Your task to perform on an android device: turn off javascript in the chrome app Image 0: 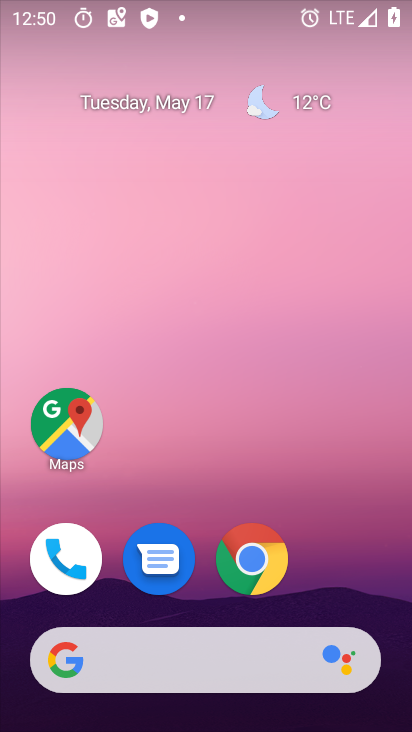
Step 0: click (252, 559)
Your task to perform on an android device: turn off javascript in the chrome app Image 1: 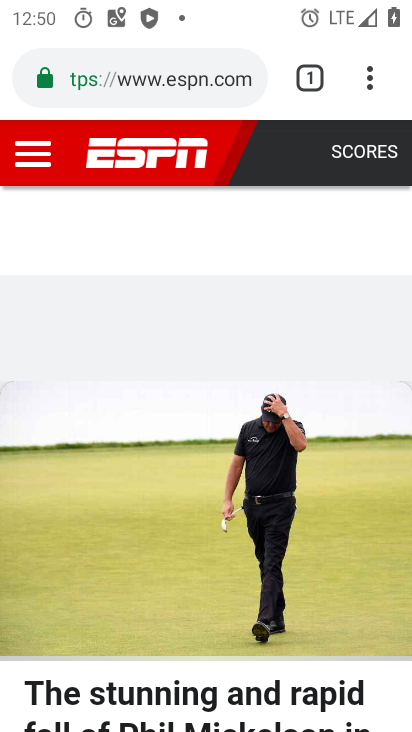
Step 1: drag from (371, 77) to (225, 630)
Your task to perform on an android device: turn off javascript in the chrome app Image 2: 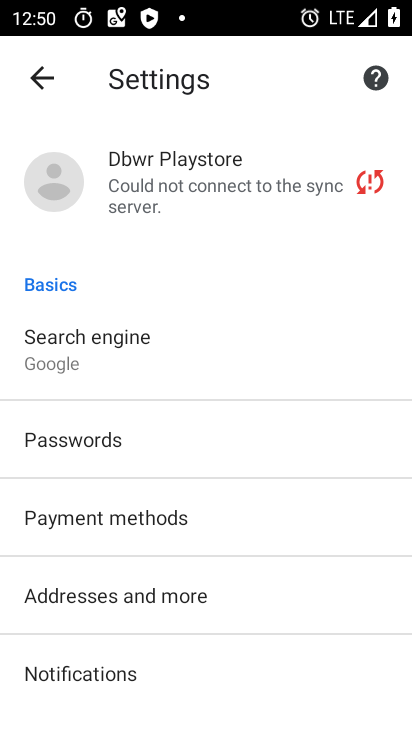
Step 2: drag from (231, 582) to (324, 163)
Your task to perform on an android device: turn off javascript in the chrome app Image 3: 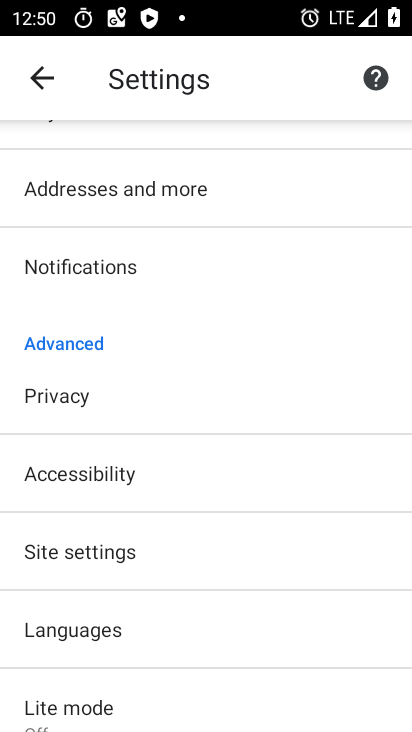
Step 3: click (125, 559)
Your task to perform on an android device: turn off javascript in the chrome app Image 4: 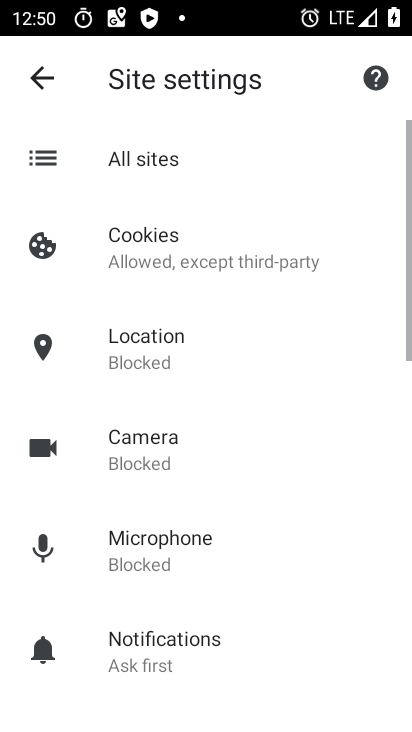
Step 4: drag from (246, 654) to (296, 257)
Your task to perform on an android device: turn off javascript in the chrome app Image 5: 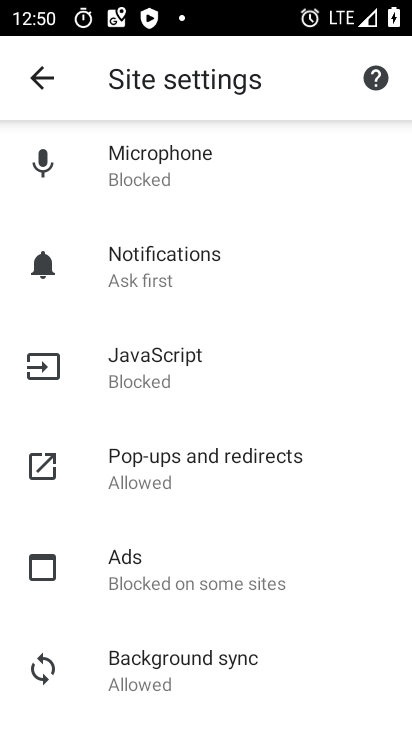
Step 5: click (198, 370)
Your task to perform on an android device: turn off javascript in the chrome app Image 6: 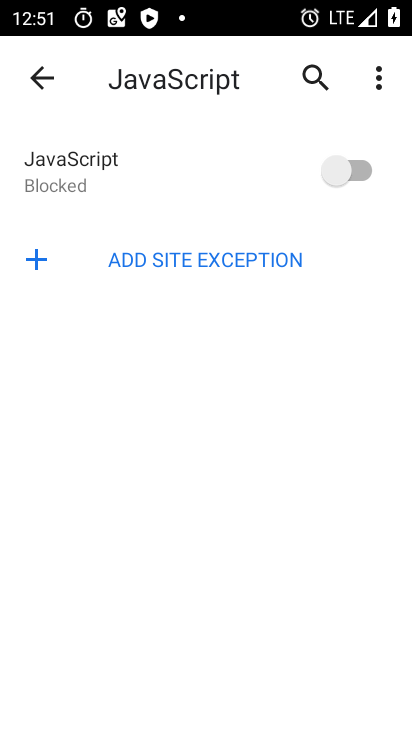
Step 6: task complete